Your task to perform on an android device: Open location settings Image 0: 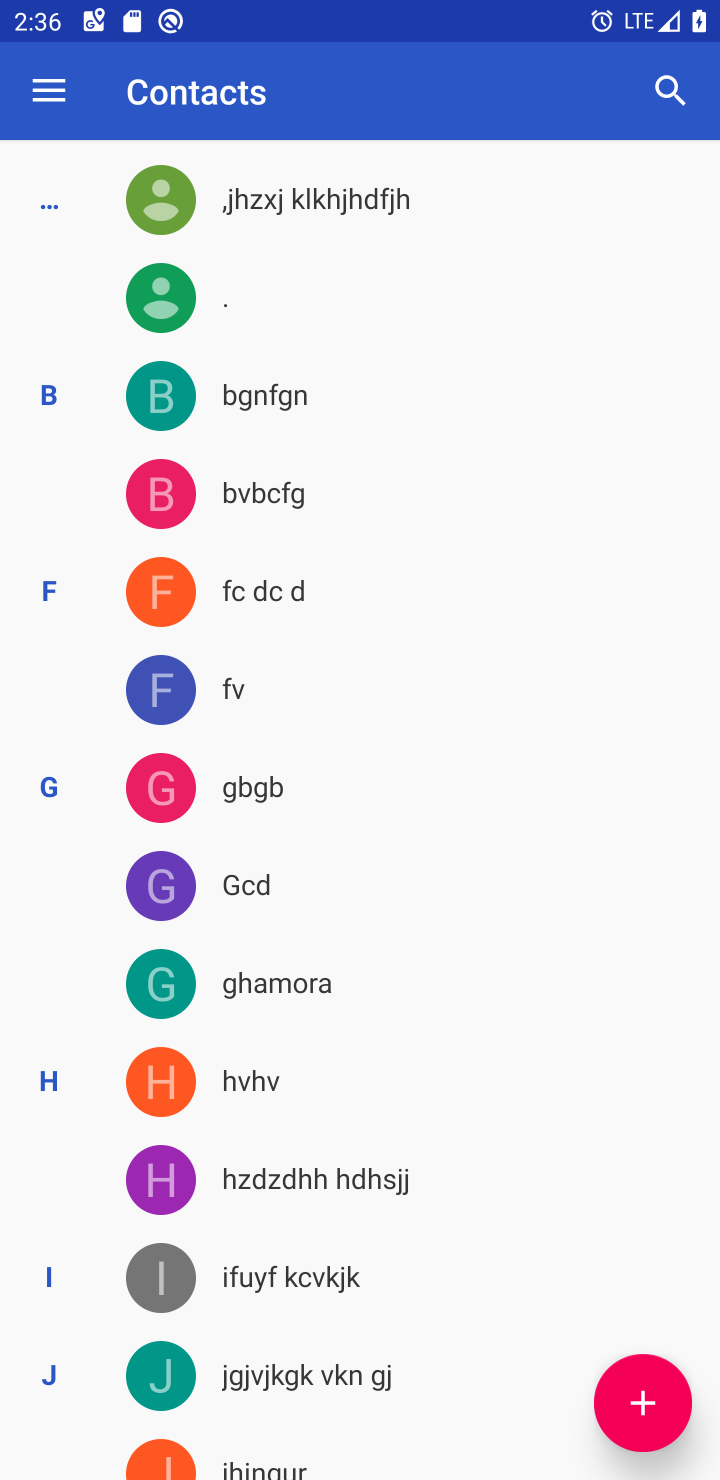
Step 0: press home button
Your task to perform on an android device: Open location settings Image 1: 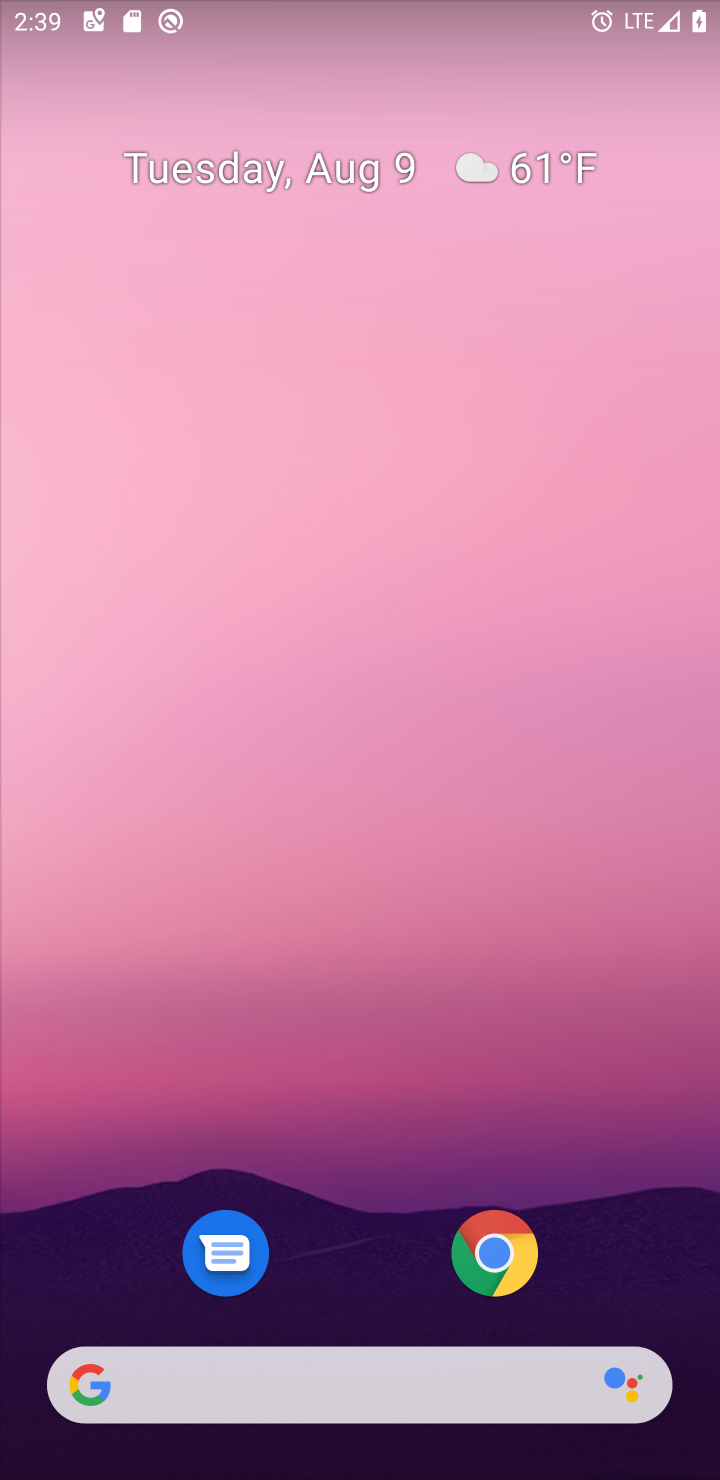
Step 1: drag from (661, 1259) to (234, 132)
Your task to perform on an android device: Open location settings Image 2: 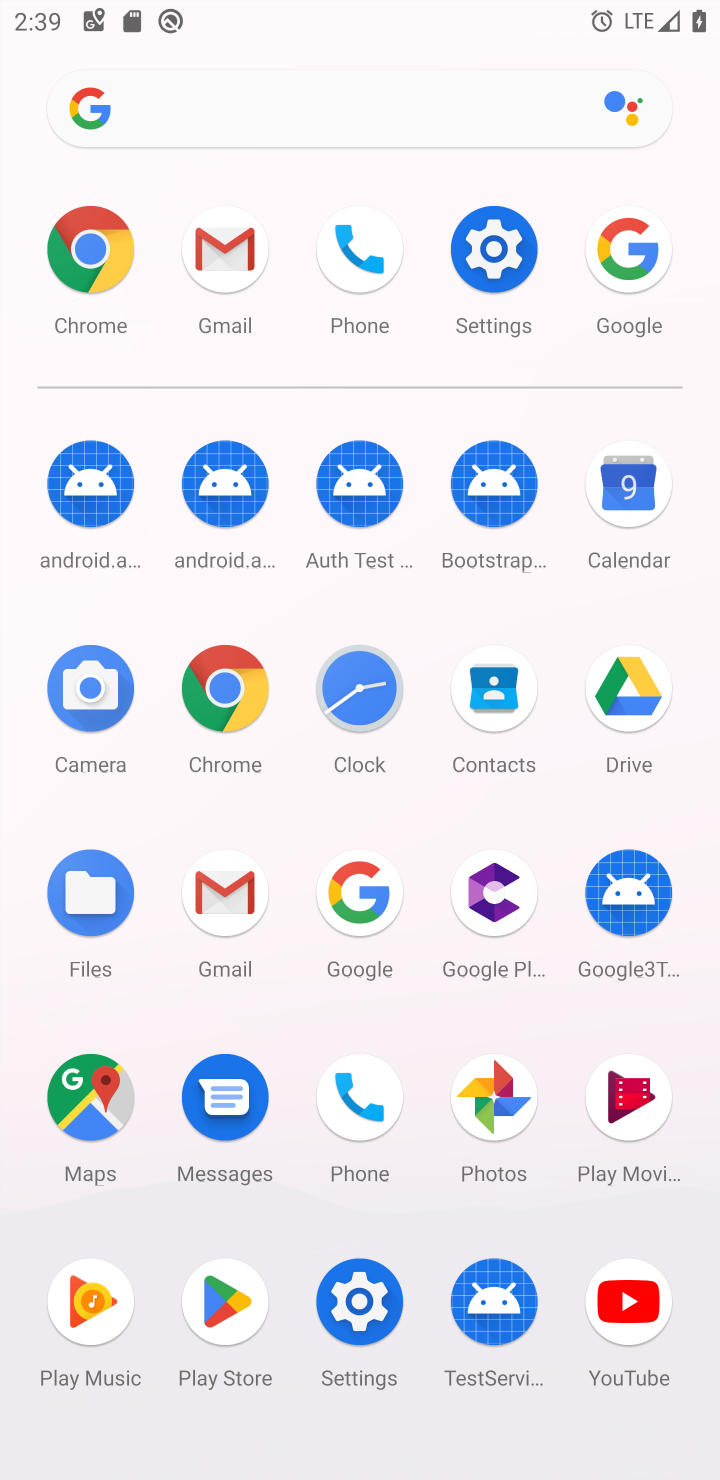
Step 2: click (361, 1310)
Your task to perform on an android device: Open location settings Image 3: 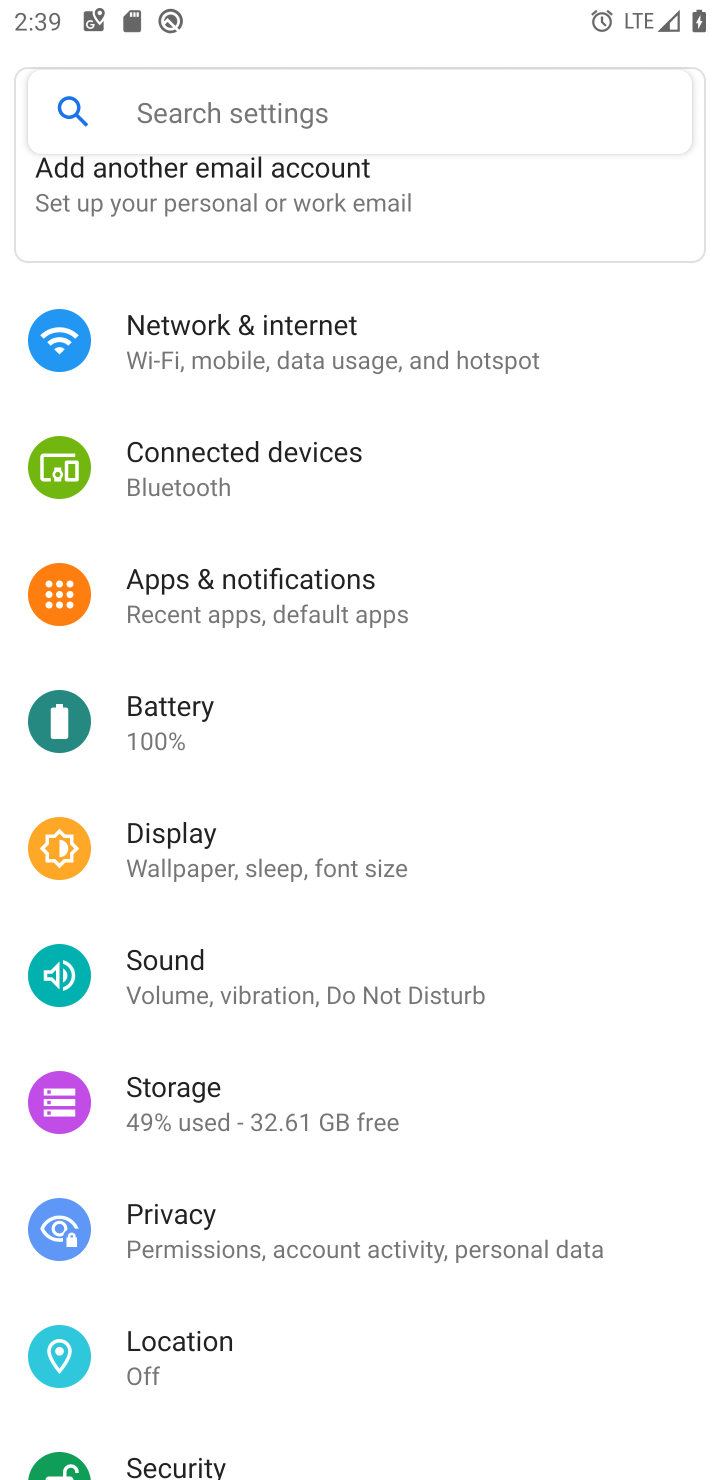
Step 3: click (129, 1354)
Your task to perform on an android device: Open location settings Image 4: 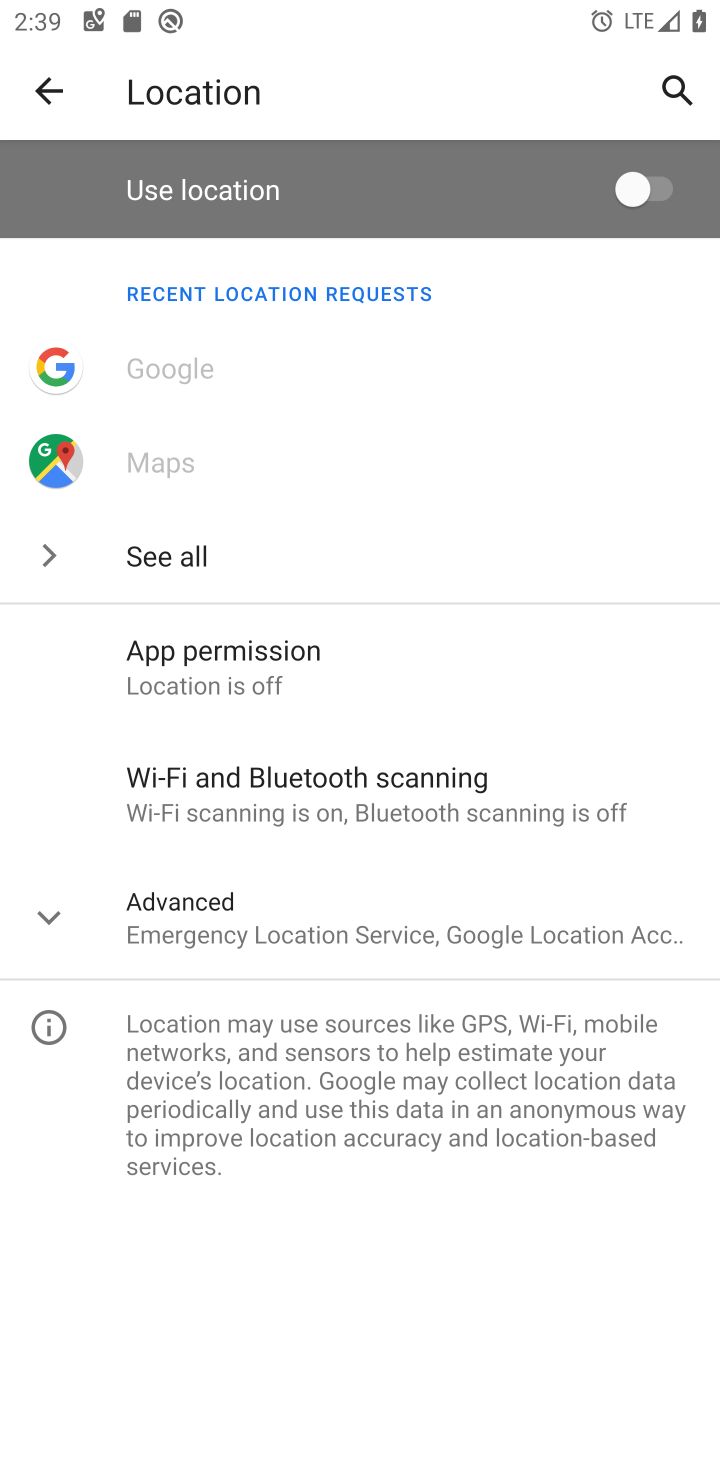
Step 4: task complete